Your task to perform on an android device: Go to Android settings Image 0: 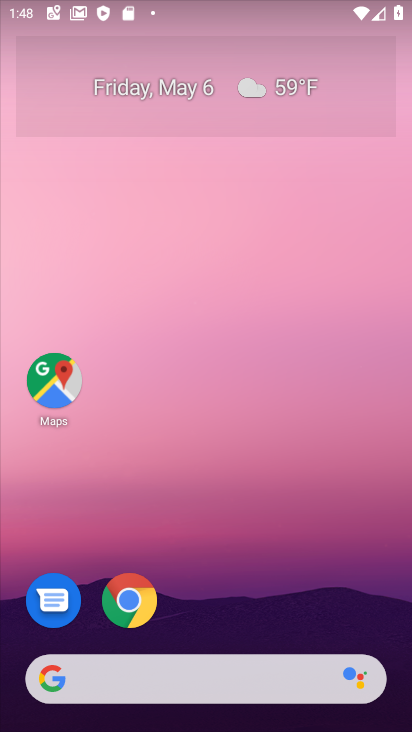
Step 0: drag from (251, 604) to (311, 33)
Your task to perform on an android device: Go to Android settings Image 1: 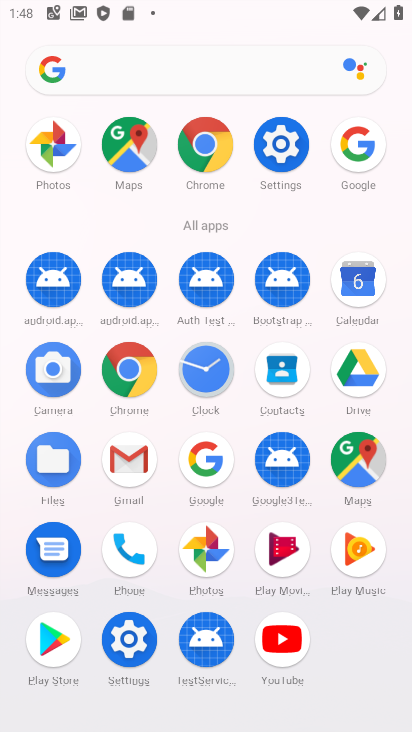
Step 1: click (276, 148)
Your task to perform on an android device: Go to Android settings Image 2: 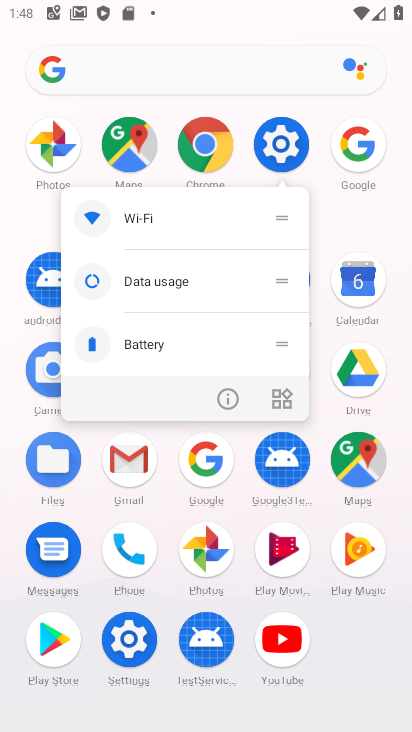
Step 2: click (286, 149)
Your task to perform on an android device: Go to Android settings Image 3: 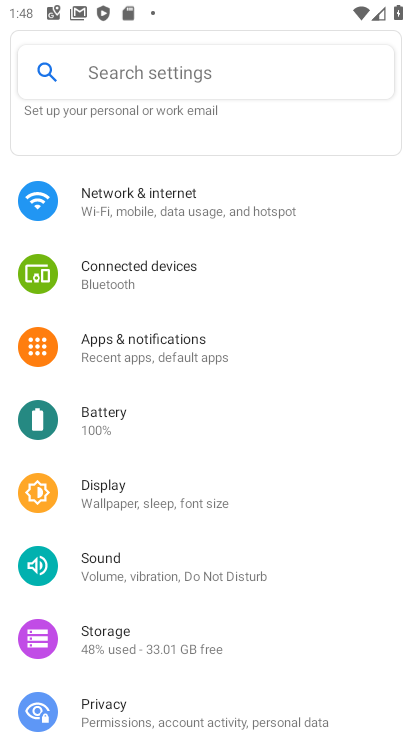
Step 3: task complete